Your task to perform on an android device: Open Google Maps and go to "Timeline" Image 0: 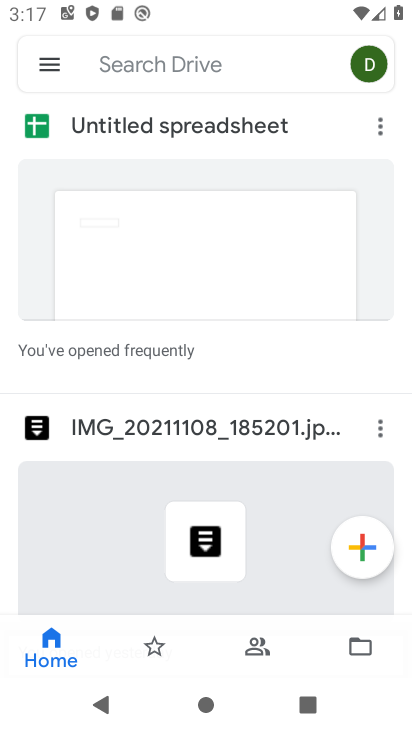
Step 0: press home button
Your task to perform on an android device: Open Google Maps and go to "Timeline" Image 1: 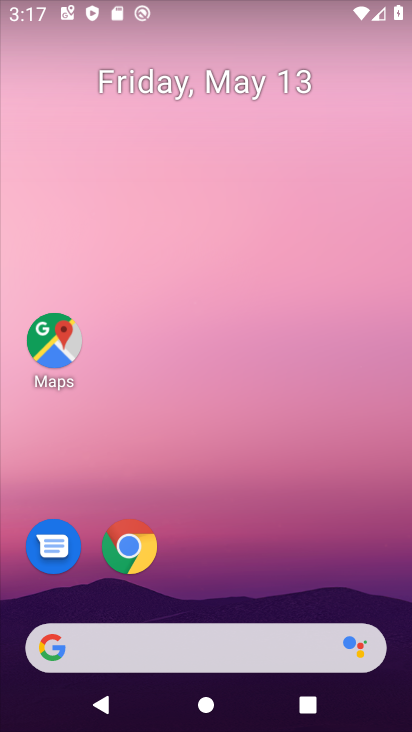
Step 1: click (56, 330)
Your task to perform on an android device: Open Google Maps and go to "Timeline" Image 2: 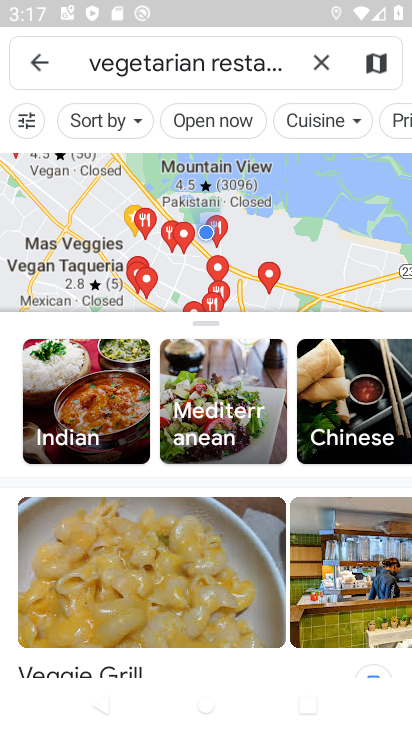
Step 2: click (51, 60)
Your task to perform on an android device: Open Google Maps and go to "Timeline" Image 3: 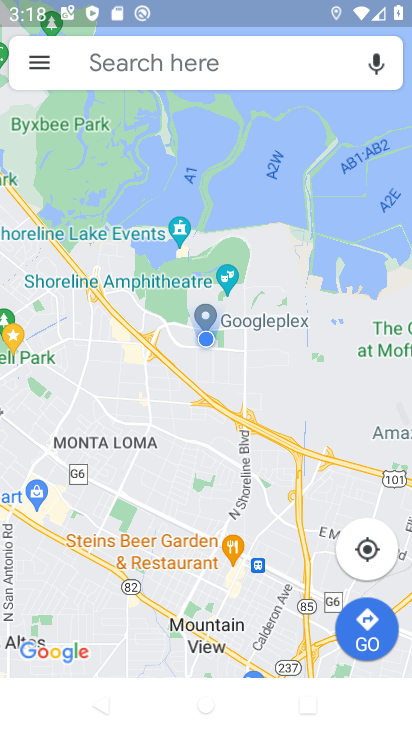
Step 3: click (48, 63)
Your task to perform on an android device: Open Google Maps and go to "Timeline" Image 4: 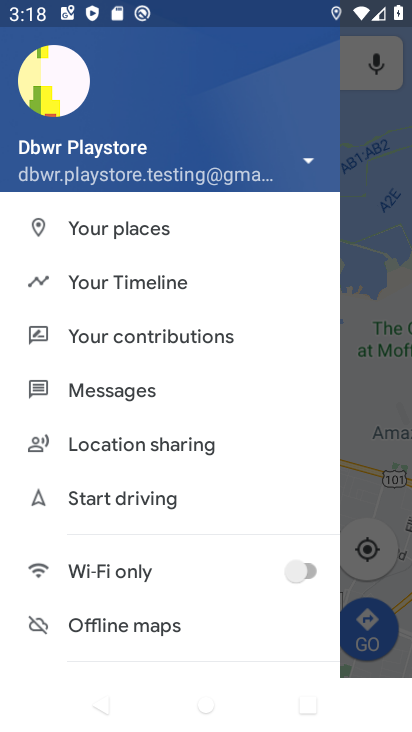
Step 4: click (80, 295)
Your task to perform on an android device: Open Google Maps and go to "Timeline" Image 5: 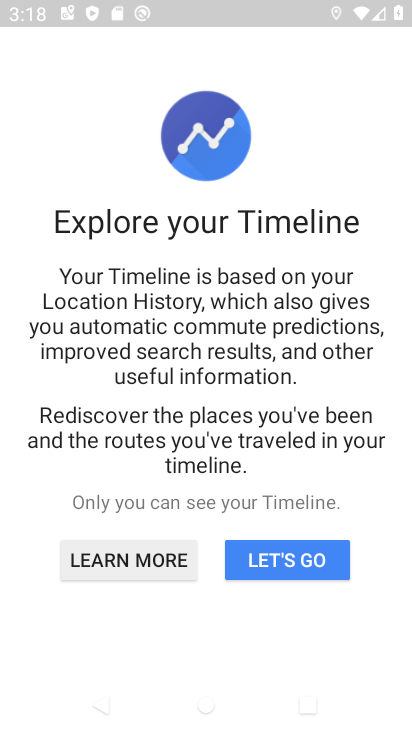
Step 5: click (279, 571)
Your task to perform on an android device: Open Google Maps and go to "Timeline" Image 6: 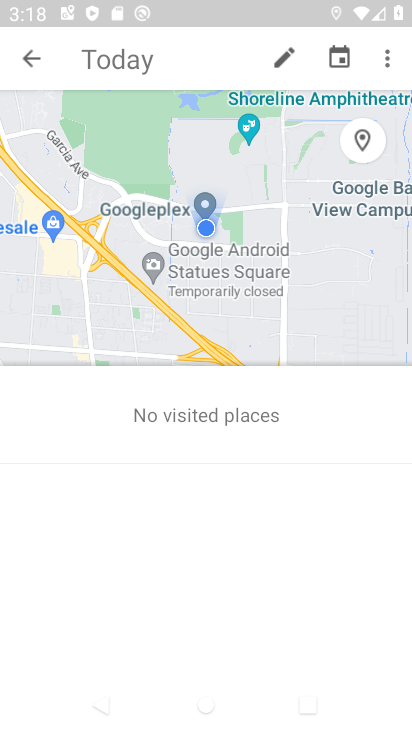
Step 6: click (33, 39)
Your task to perform on an android device: Open Google Maps and go to "Timeline" Image 7: 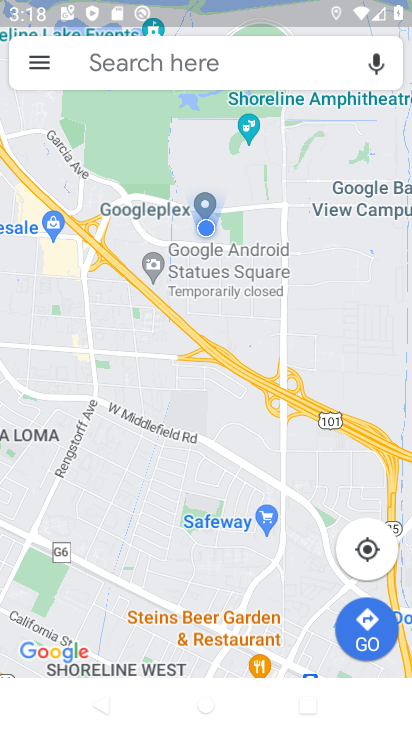
Step 7: click (35, 46)
Your task to perform on an android device: Open Google Maps and go to "Timeline" Image 8: 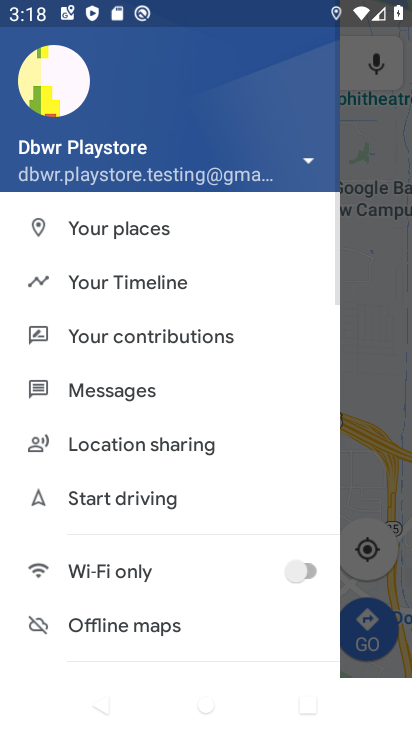
Step 8: click (198, 297)
Your task to perform on an android device: Open Google Maps and go to "Timeline" Image 9: 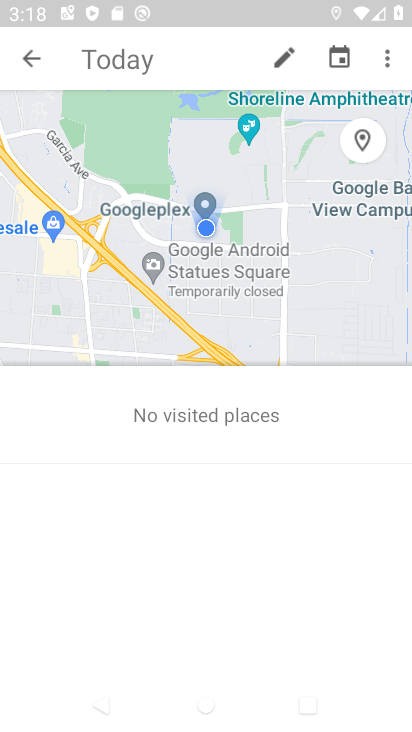
Step 9: task complete